Your task to perform on an android device: Show me popular videos on Youtube Image 0: 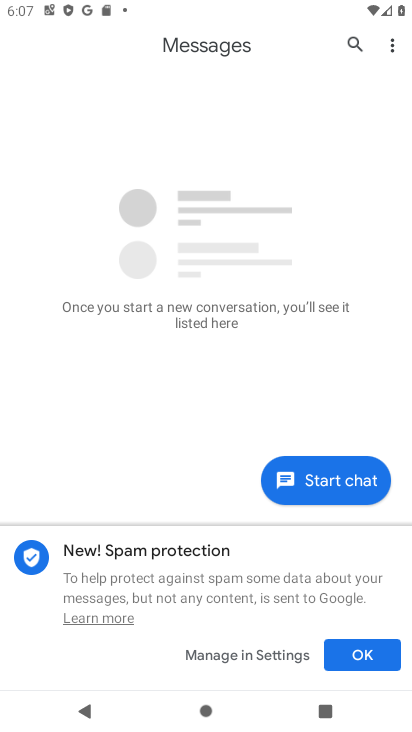
Step 0: press home button
Your task to perform on an android device: Show me popular videos on Youtube Image 1: 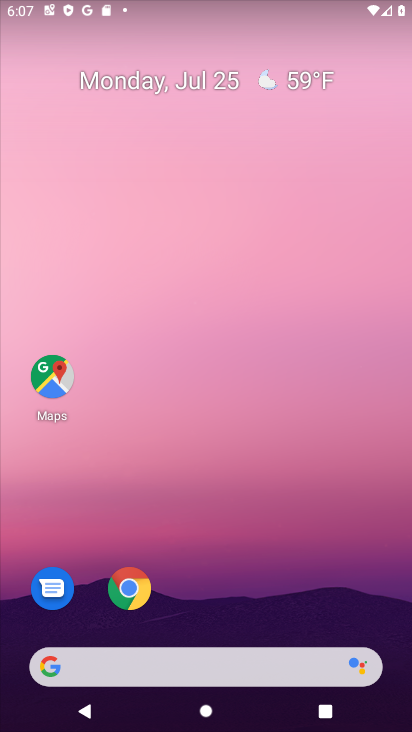
Step 1: drag from (253, 540) to (289, 92)
Your task to perform on an android device: Show me popular videos on Youtube Image 2: 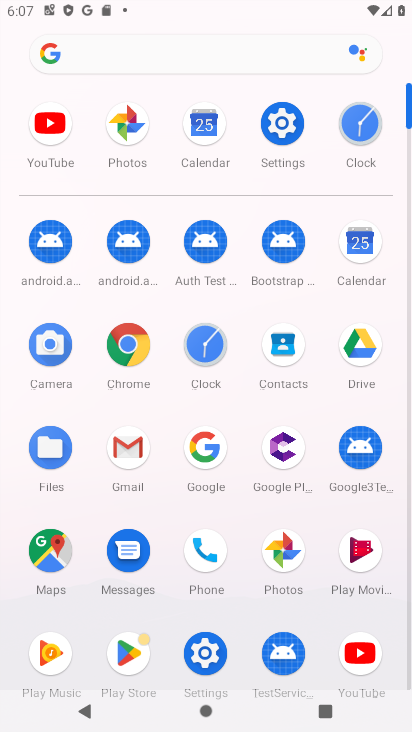
Step 2: click (358, 656)
Your task to perform on an android device: Show me popular videos on Youtube Image 3: 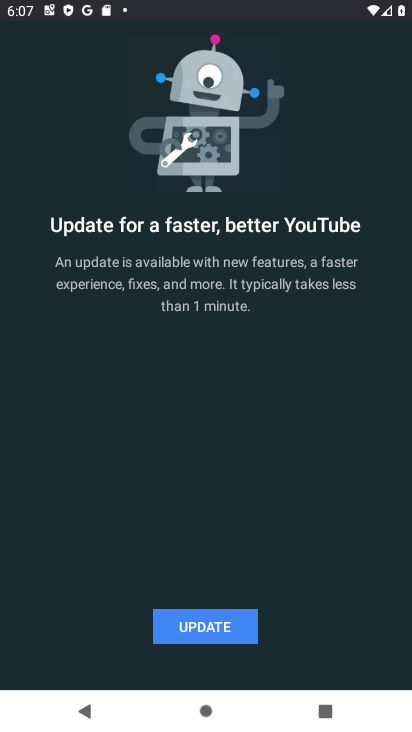
Step 3: task complete